Your task to perform on an android device: turn pop-ups on in chrome Image 0: 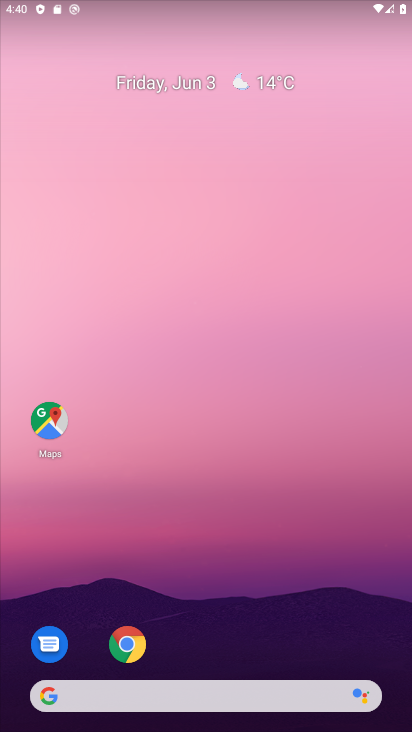
Step 0: click (134, 641)
Your task to perform on an android device: turn pop-ups on in chrome Image 1: 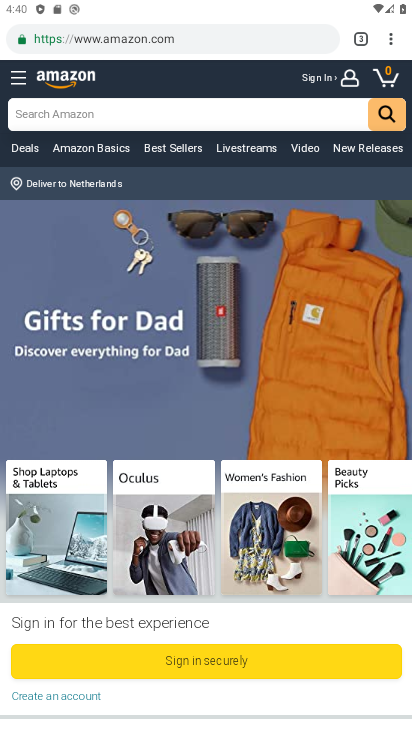
Step 1: click (397, 37)
Your task to perform on an android device: turn pop-ups on in chrome Image 2: 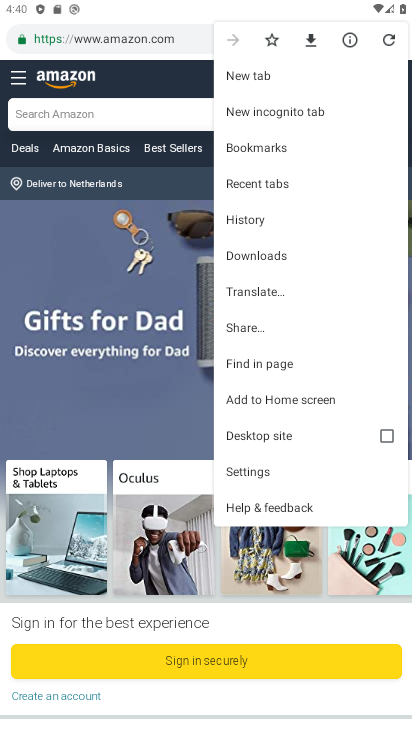
Step 2: click (244, 479)
Your task to perform on an android device: turn pop-ups on in chrome Image 3: 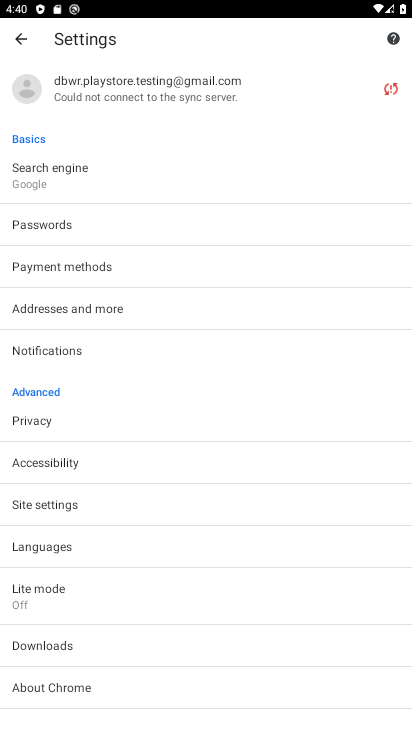
Step 3: click (59, 498)
Your task to perform on an android device: turn pop-ups on in chrome Image 4: 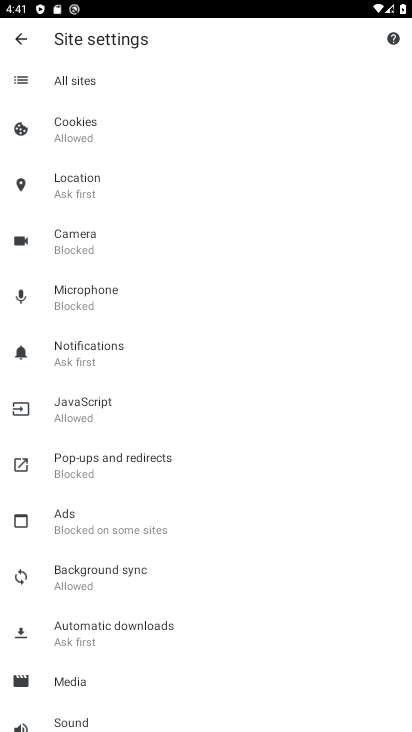
Step 4: click (66, 475)
Your task to perform on an android device: turn pop-ups on in chrome Image 5: 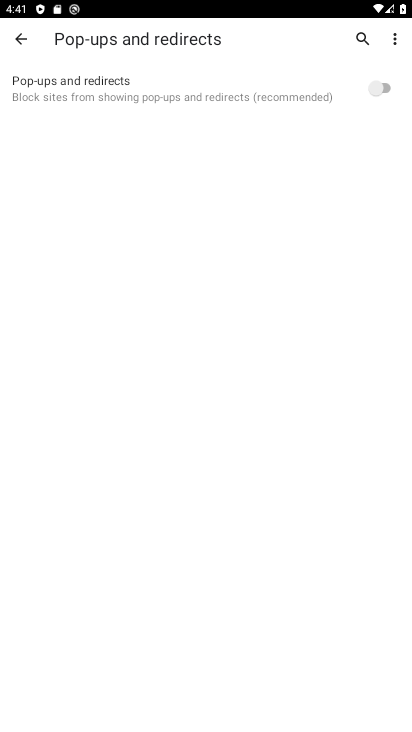
Step 5: click (387, 86)
Your task to perform on an android device: turn pop-ups on in chrome Image 6: 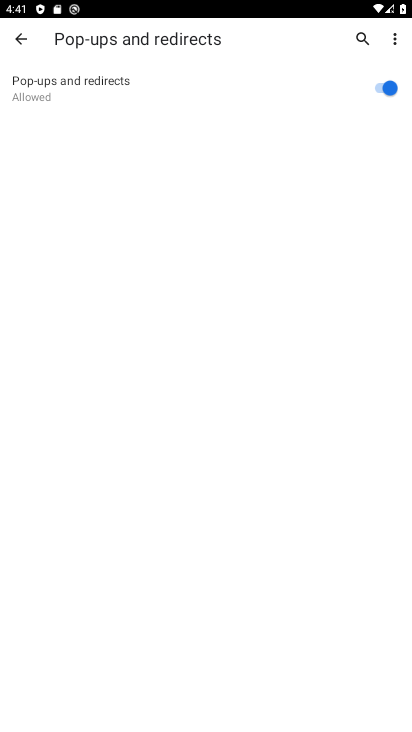
Step 6: task complete